Your task to perform on an android device: See recent photos Image 0: 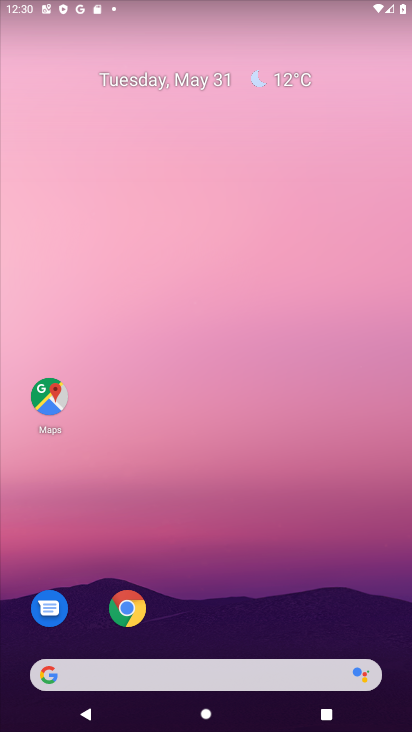
Step 0: drag from (217, 595) to (265, 120)
Your task to perform on an android device: See recent photos Image 1: 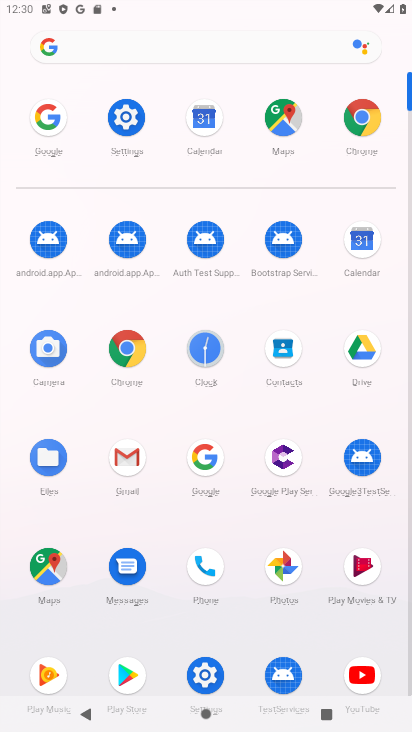
Step 1: click (286, 580)
Your task to perform on an android device: See recent photos Image 2: 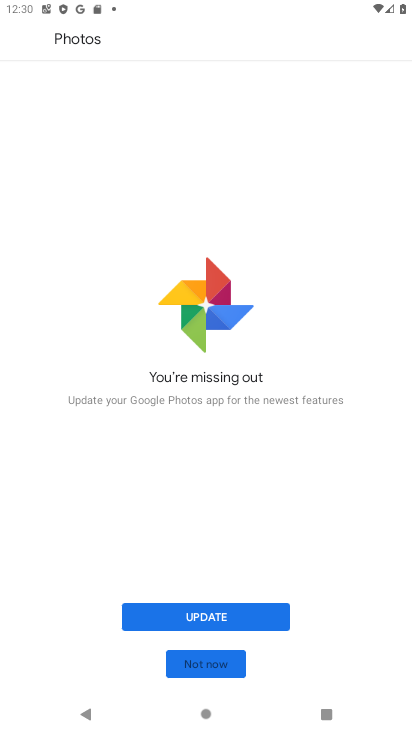
Step 2: click (188, 615)
Your task to perform on an android device: See recent photos Image 3: 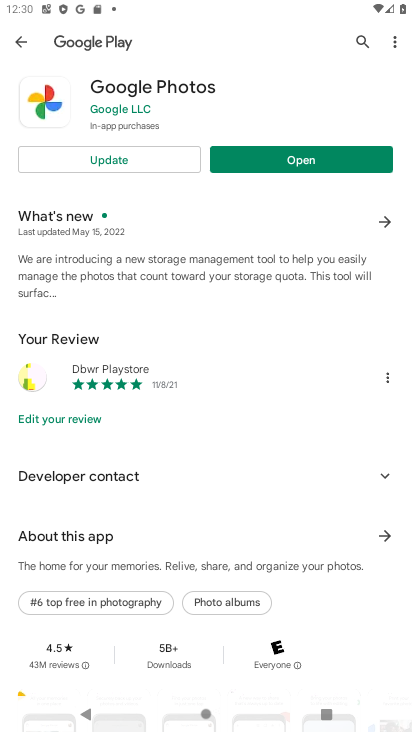
Step 3: click (123, 158)
Your task to perform on an android device: See recent photos Image 4: 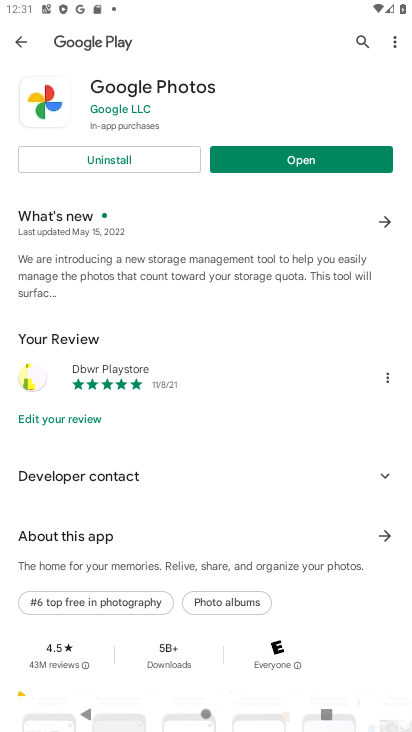
Step 4: click (324, 156)
Your task to perform on an android device: See recent photos Image 5: 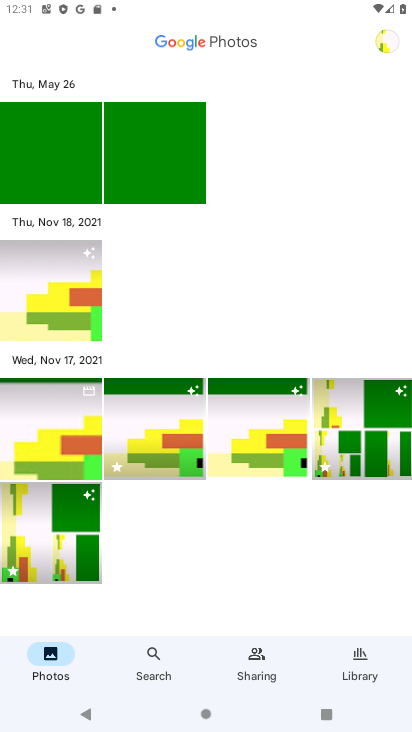
Step 5: task complete